Your task to perform on an android device: Go to Android settings Image 0: 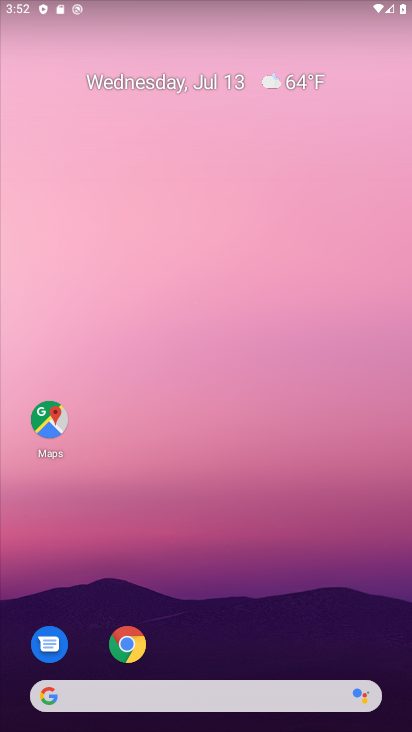
Step 0: drag from (233, 563) to (180, 74)
Your task to perform on an android device: Go to Android settings Image 1: 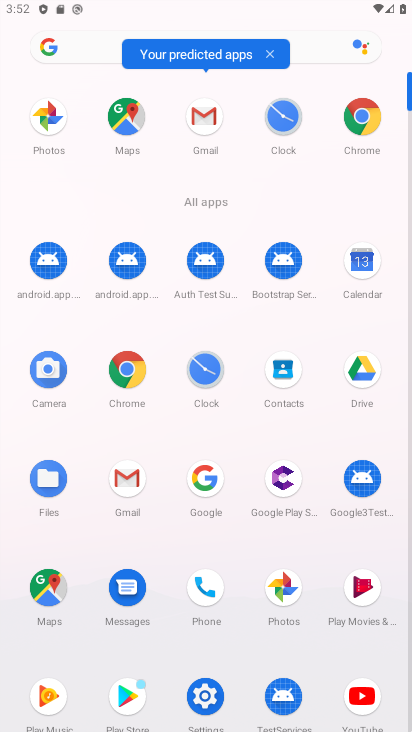
Step 1: click (202, 699)
Your task to perform on an android device: Go to Android settings Image 2: 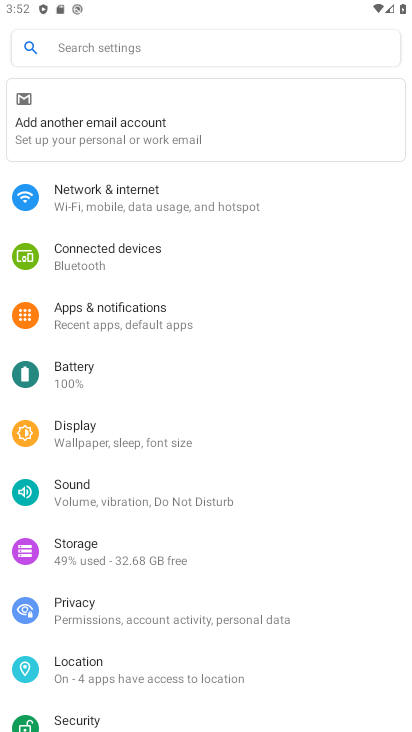
Step 2: task complete